Your task to perform on an android device: Show me popular games on the Play Store Image 0: 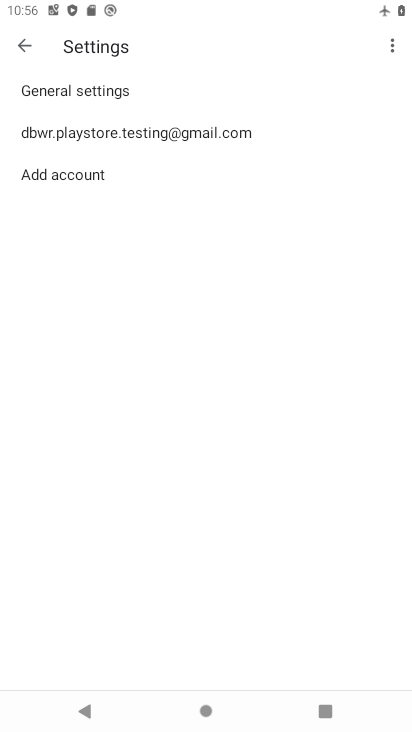
Step 0: press home button
Your task to perform on an android device: Show me popular games on the Play Store Image 1: 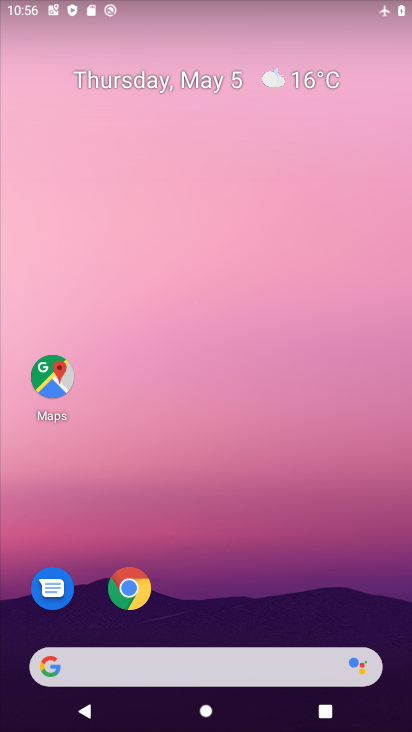
Step 1: drag from (224, 616) to (386, 492)
Your task to perform on an android device: Show me popular games on the Play Store Image 2: 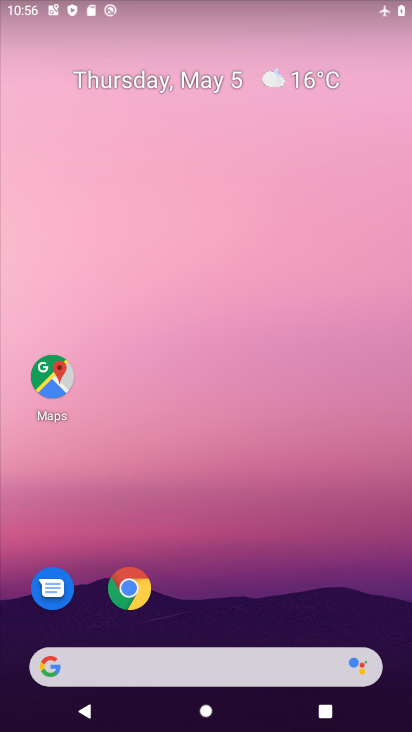
Step 2: drag from (282, 607) to (220, 43)
Your task to perform on an android device: Show me popular games on the Play Store Image 3: 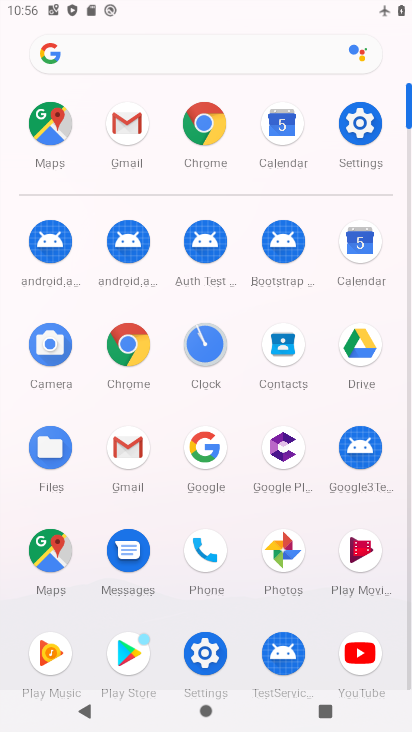
Step 3: click (124, 653)
Your task to perform on an android device: Show me popular games on the Play Store Image 4: 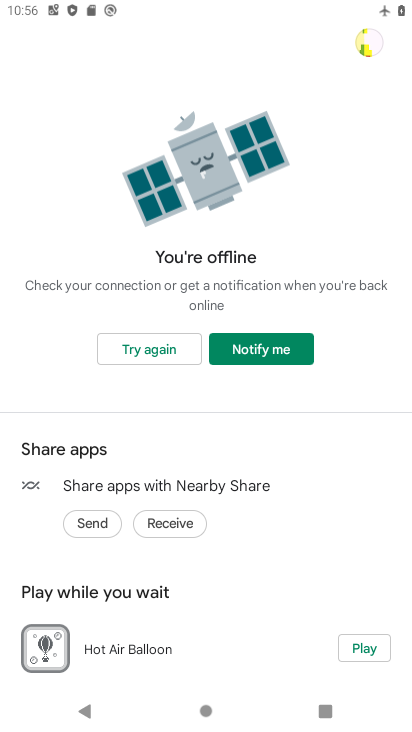
Step 4: task complete